Your task to perform on an android device: change the upload size in google photos Image 0: 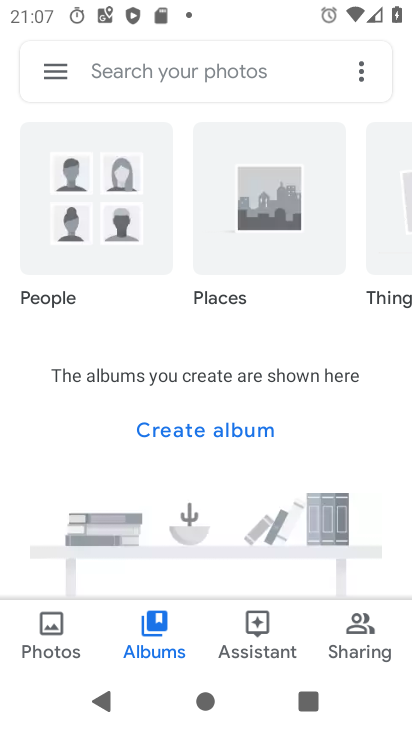
Step 0: press home button
Your task to perform on an android device: change the upload size in google photos Image 1: 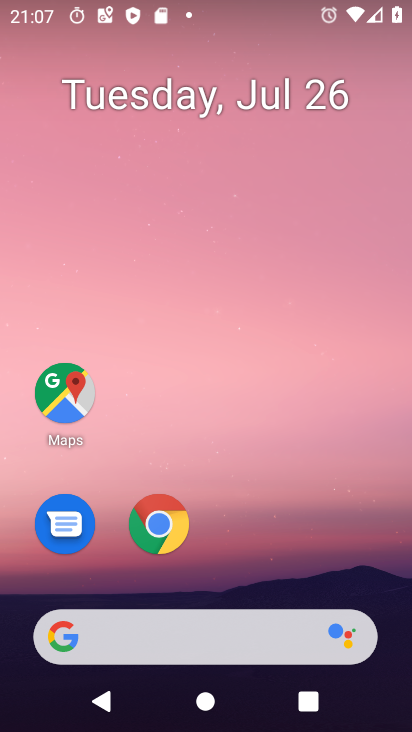
Step 1: drag from (286, 573) to (301, 59)
Your task to perform on an android device: change the upload size in google photos Image 2: 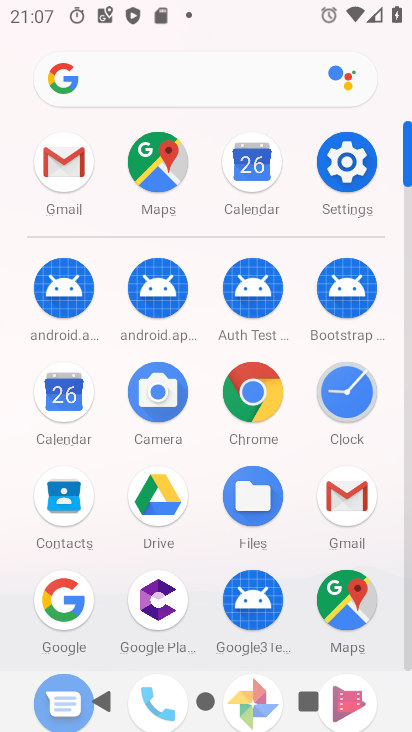
Step 2: drag from (212, 526) to (216, 375)
Your task to perform on an android device: change the upload size in google photos Image 3: 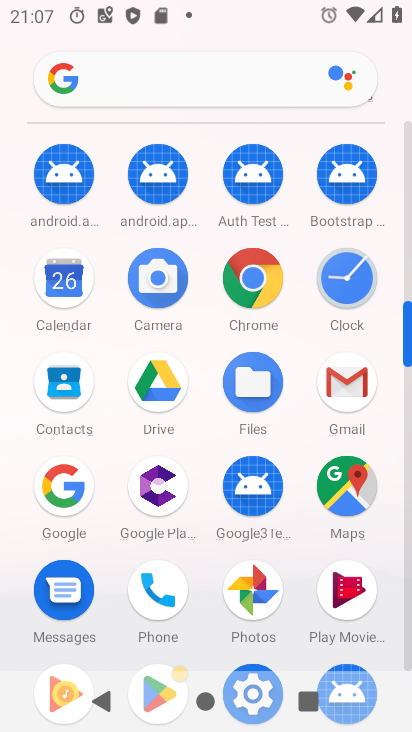
Step 3: click (259, 576)
Your task to perform on an android device: change the upload size in google photos Image 4: 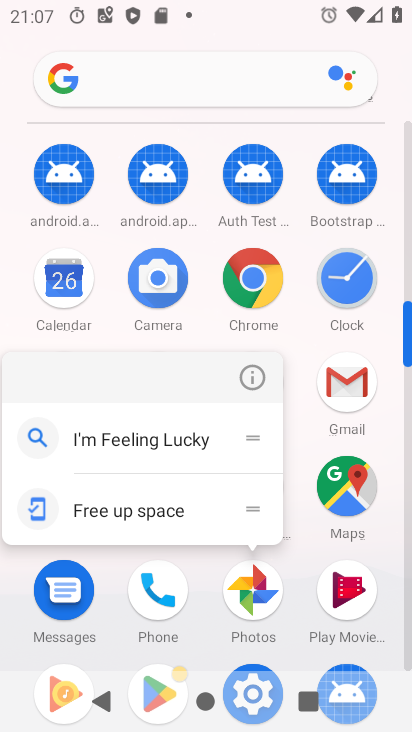
Step 4: click (262, 595)
Your task to perform on an android device: change the upload size in google photos Image 5: 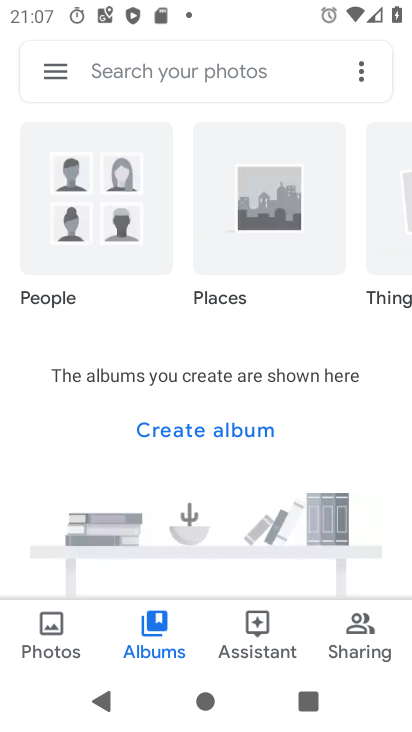
Step 5: click (60, 74)
Your task to perform on an android device: change the upload size in google photos Image 6: 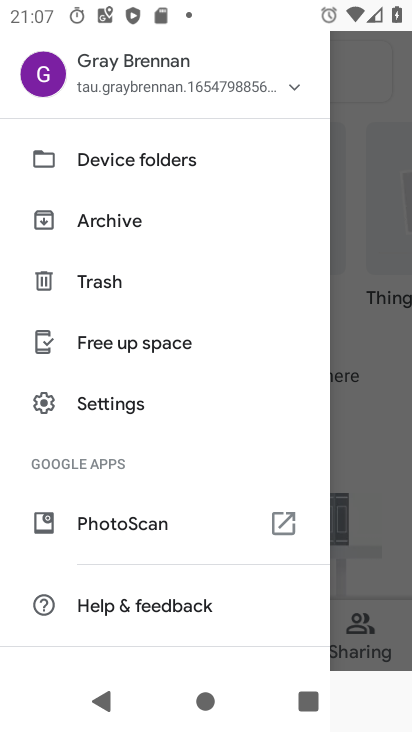
Step 6: click (122, 393)
Your task to perform on an android device: change the upload size in google photos Image 7: 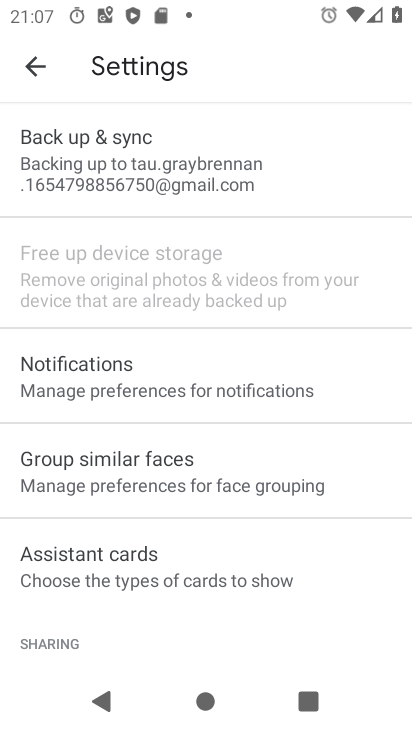
Step 7: click (150, 168)
Your task to perform on an android device: change the upload size in google photos Image 8: 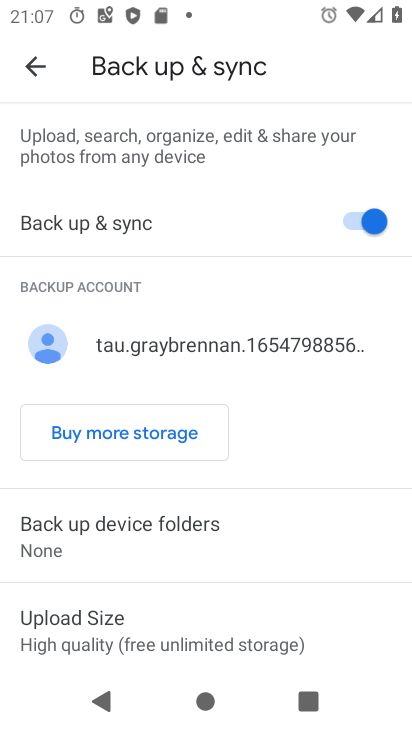
Step 8: click (229, 628)
Your task to perform on an android device: change the upload size in google photos Image 9: 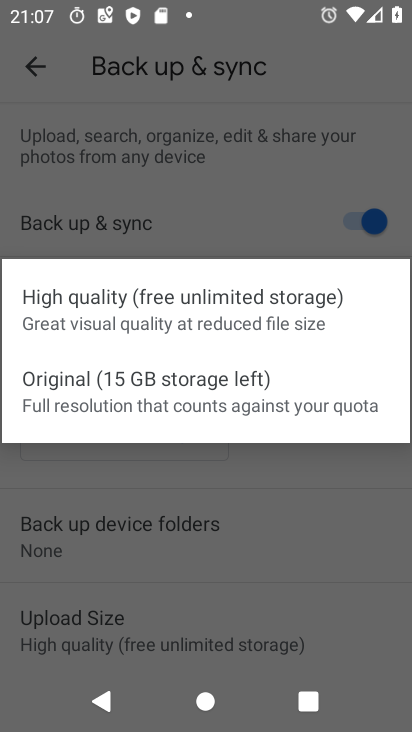
Step 9: click (239, 384)
Your task to perform on an android device: change the upload size in google photos Image 10: 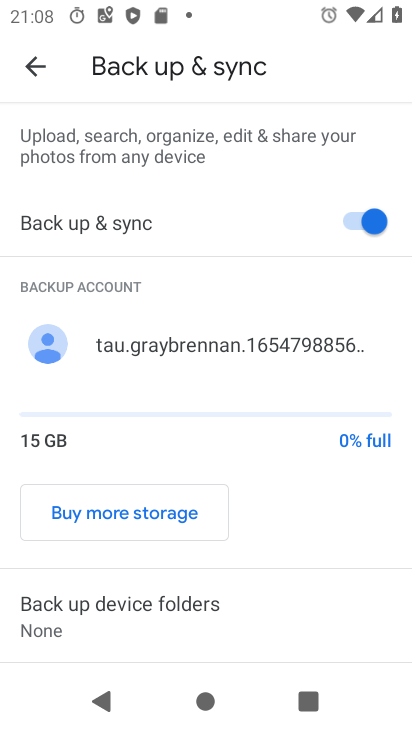
Step 10: task complete